Your task to perform on an android device: turn off javascript in the chrome app Image 0: 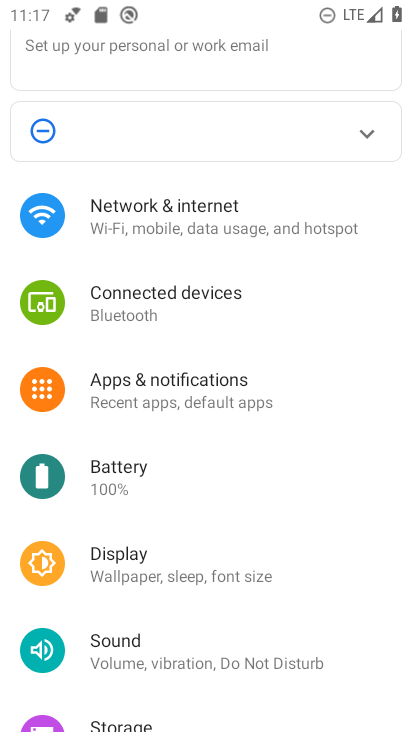
Step 0: press home button
Your task to perform on an android device: turn off javascript in the chrome app Image 1: 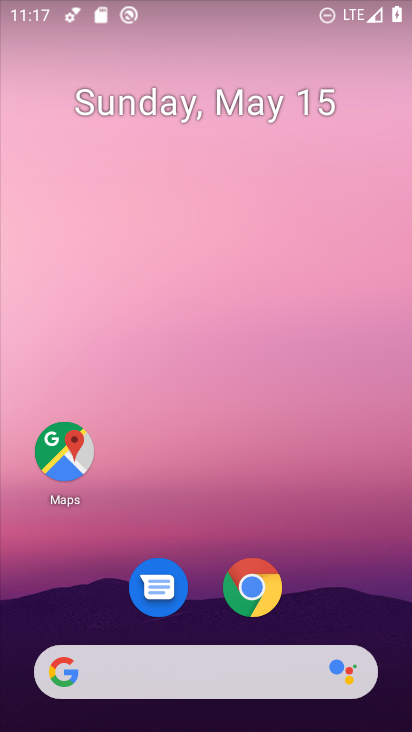
Step 1: click (272, 572)
Your task to perform on an android device: turn off javascript in the chrome app Image 2: 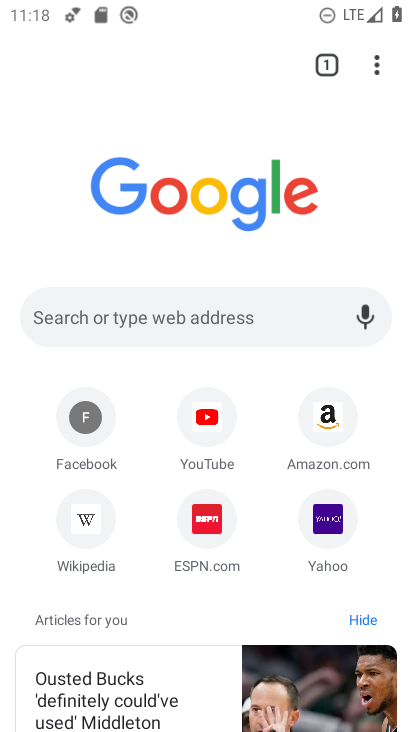
Step 2: drag from (376, 65) to (172, 539)
Your task to perform on an android device: turn off javascript in the chrome app Image 3: 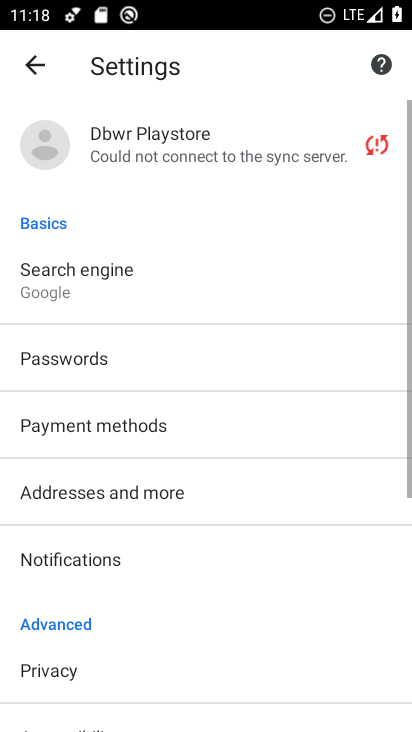
Step 3: drag from (177, 553) to (242, 285)
Your task to perform on an android device: turn off javascript in the chrome app Image 4: 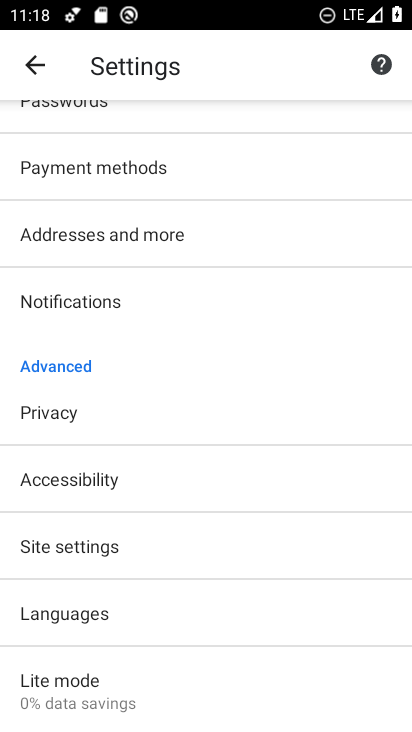
Step 4: click (119, 547)
Your task to perform on an android device: turn off javascript in the chrome app Image 5: 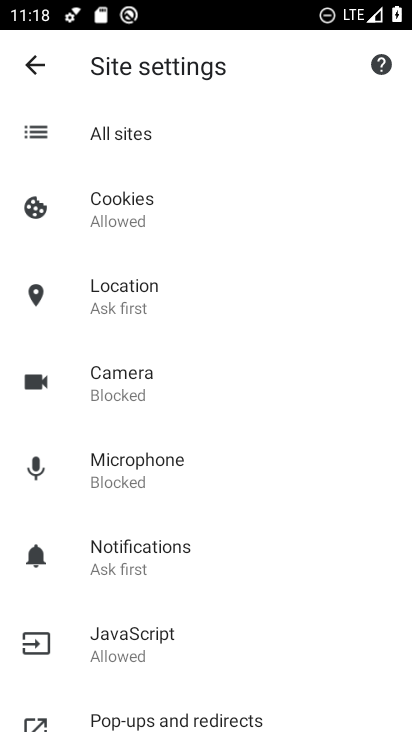
Step 5: click (168, 622)
Your task to perform on an android device: turn off javascript in the chrome app Image 6: 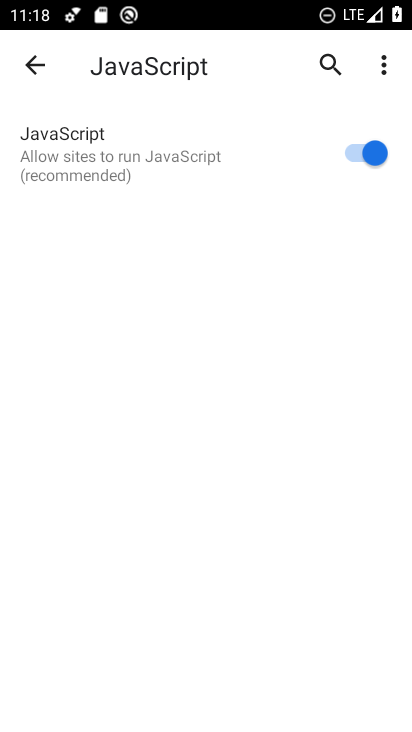
Step 6: click (348, 161)
Your task to perform on an android device: turn off javascript in the chrome app Image 7: 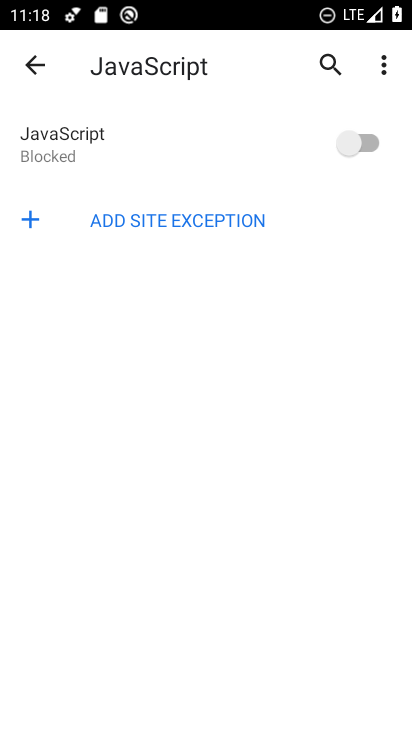
Step 7: task complete